Your task to perform on an android device: turn off sleep mode Image 0: 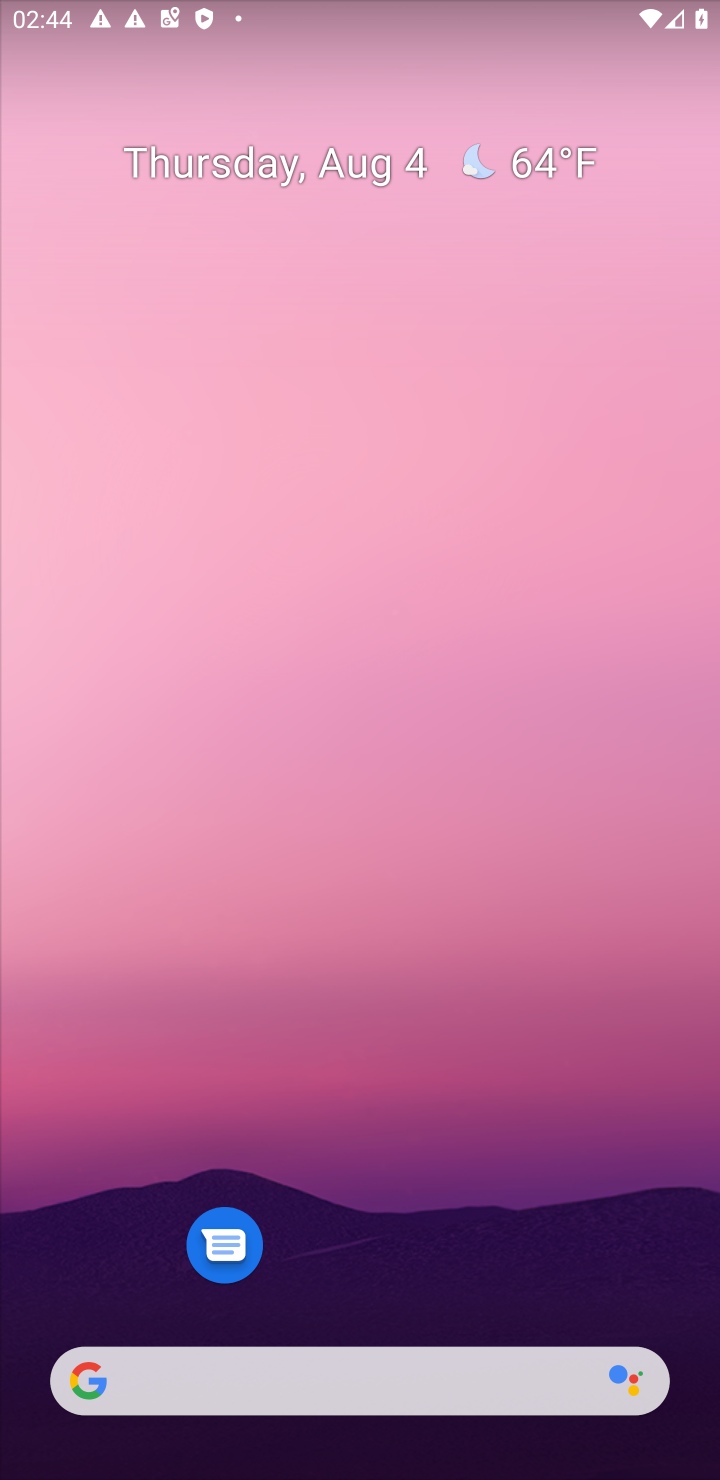
Step 0: drag from (424, 1370) to (475, 286)
Your task to perform on an android device: turn off sleep mode Image 1: 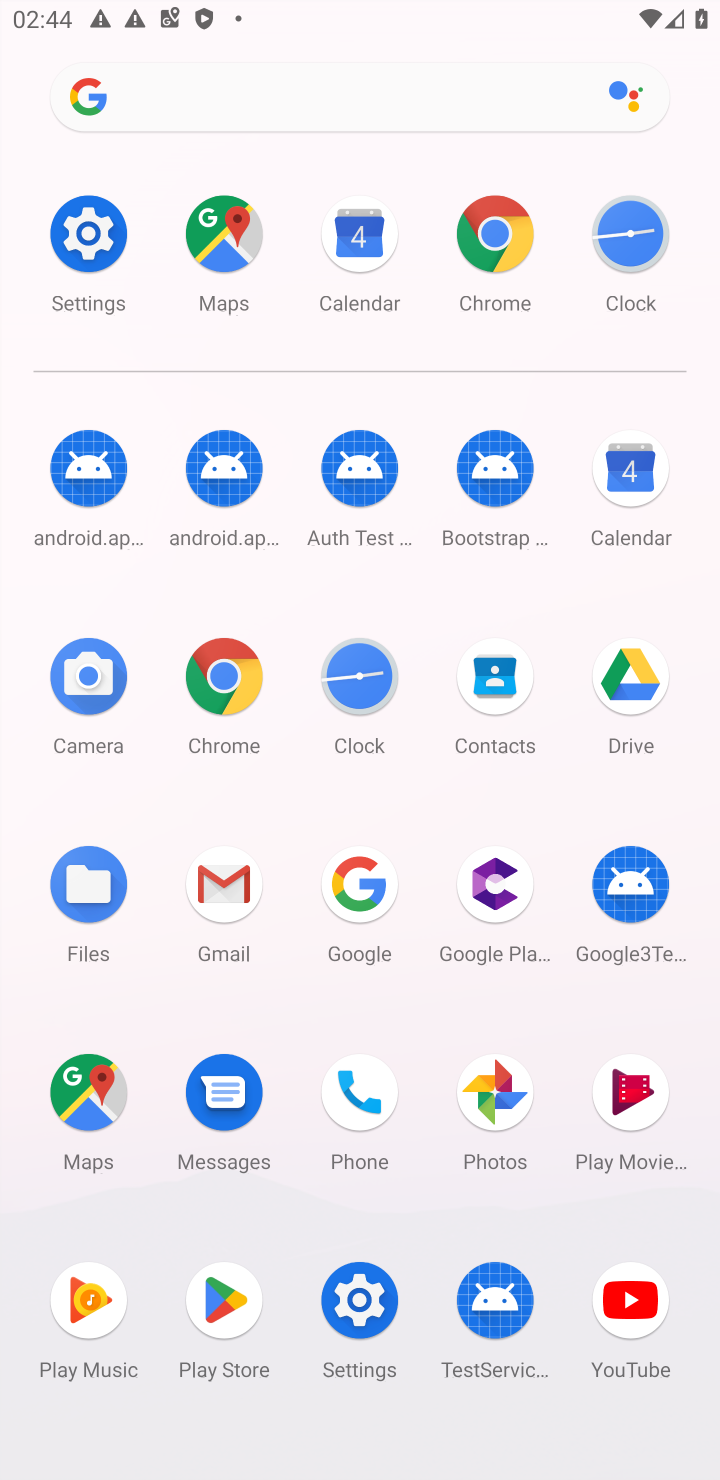
Step 1: click (77, 232)
Your task to perform on an android device: turn off sleep mode Image 2: 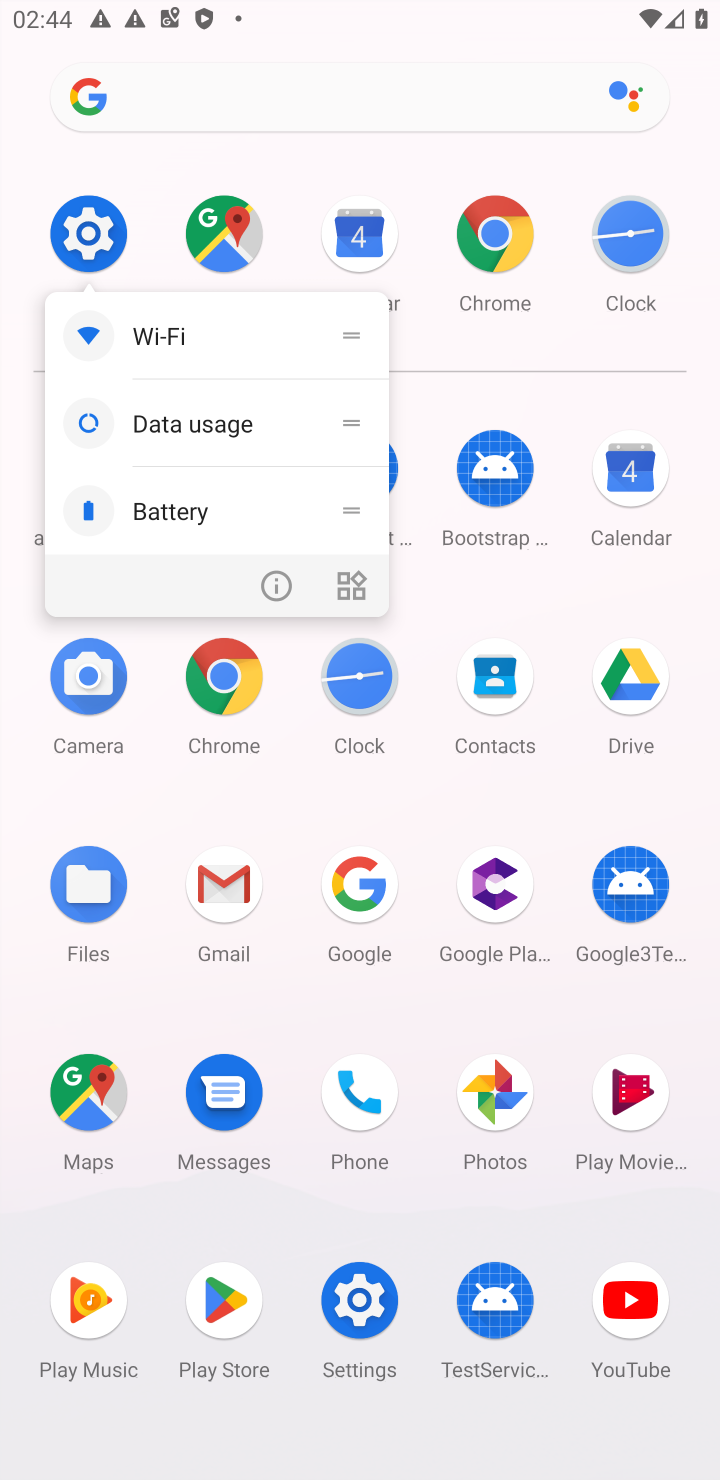
Step 2: click (377, 1312)
Your task to perform on an android device: turn off sleep mode Image 3: 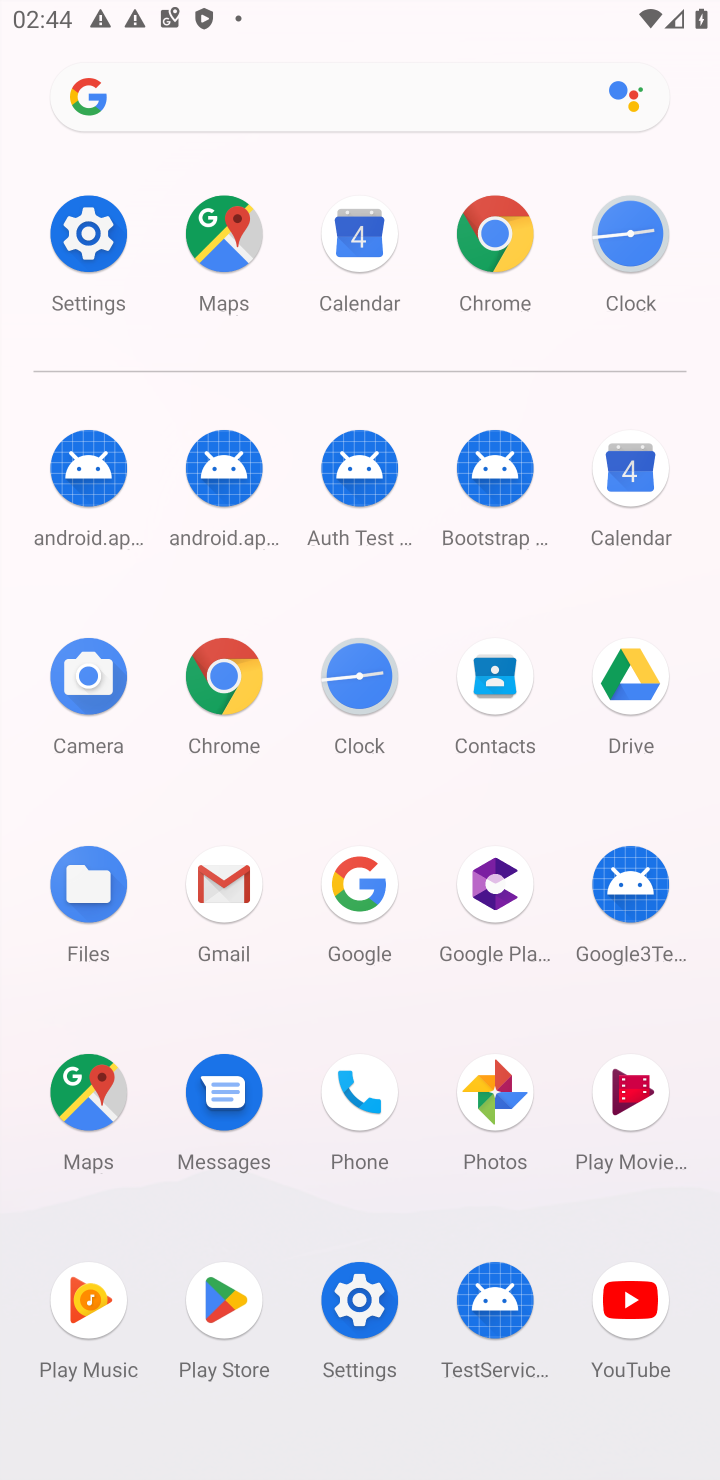
Step 3: click (333, 1312)
Your task to perform on an android device: turn off sleep mode Image 4: 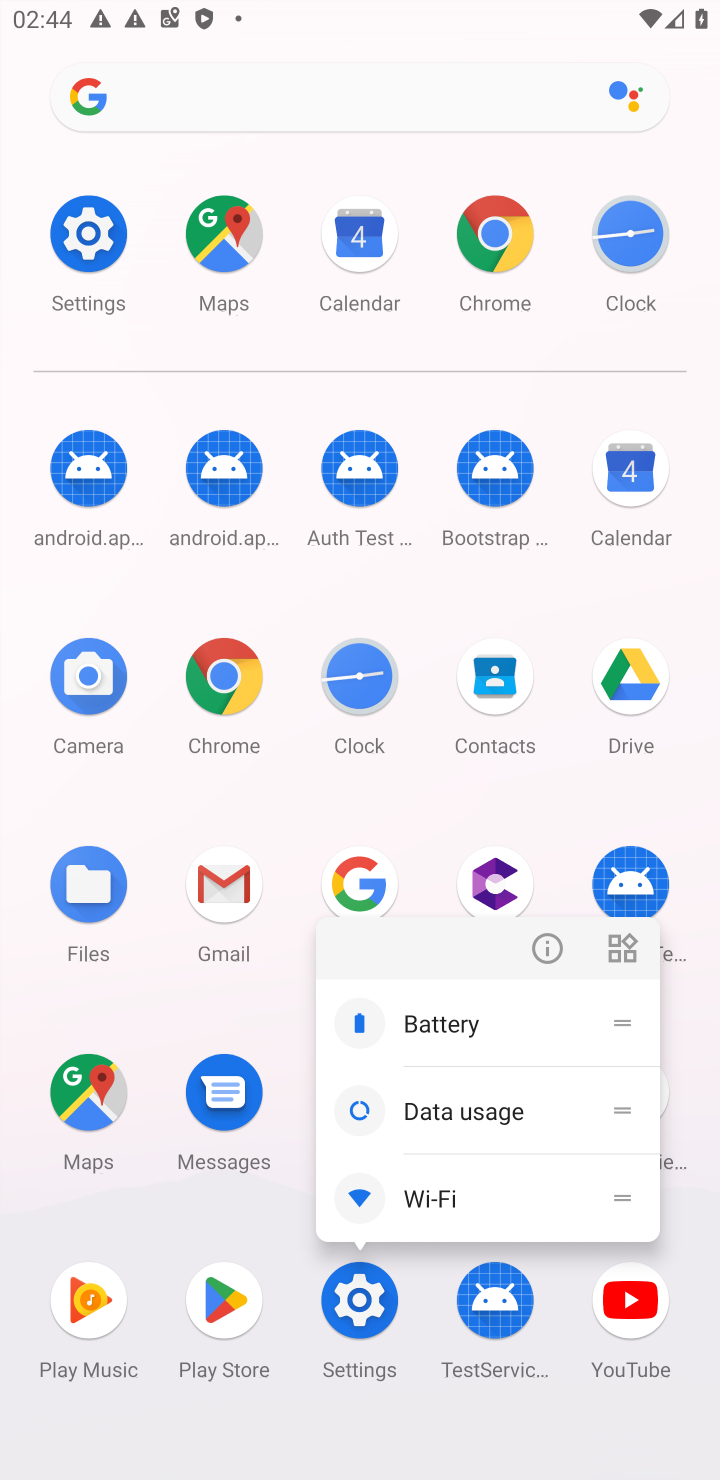
Step 4: click (332, 1283)
Your task to perform on an android device: turn off sleep mode Image 5: 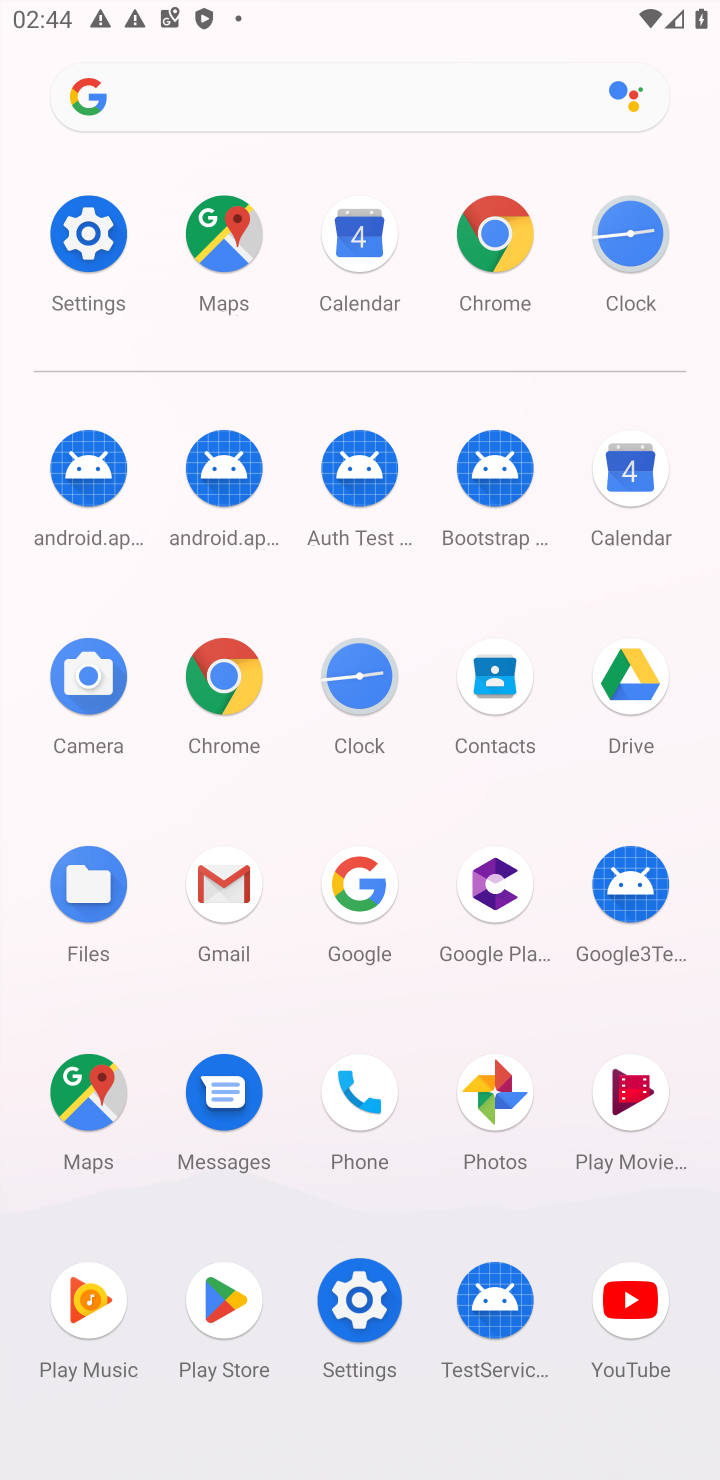
Step 5: click (350, 1294)
Your task to perform on an android device: turn off sleep mode Image 6: 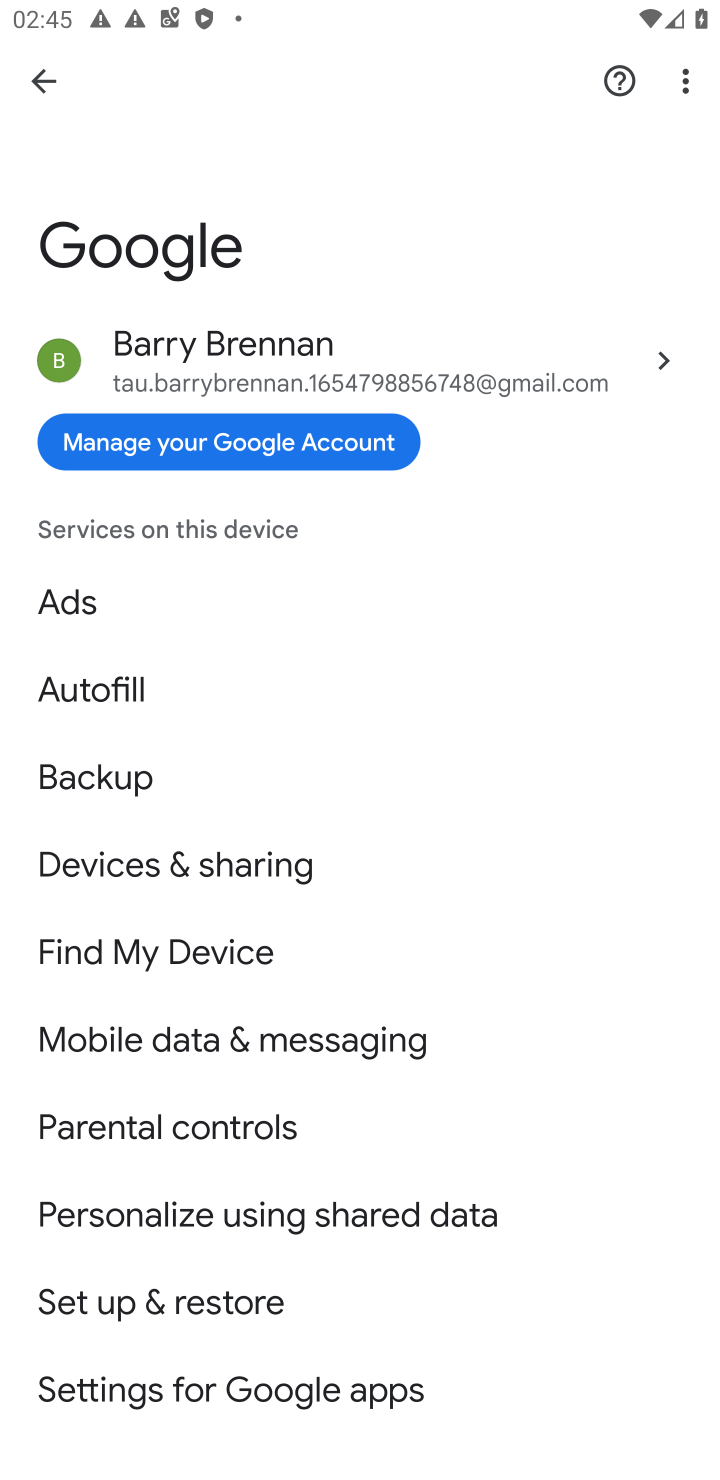
Step 6: task complete